Your task to perform on an android device: set the stopwatch Image 0: 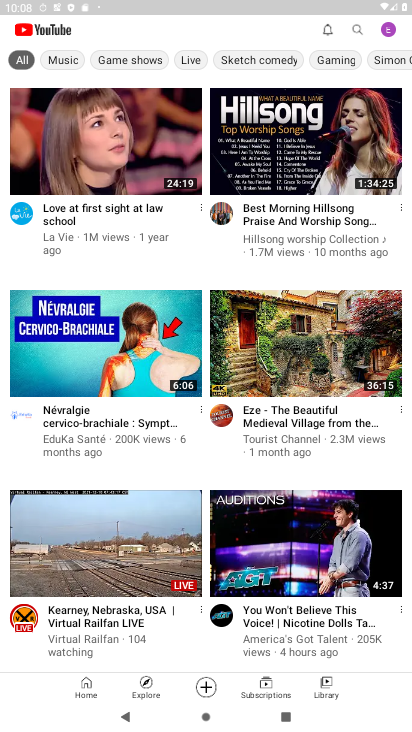
Step 0: press home button
Your task to perform on an android device: set the stopwatch Image 1: 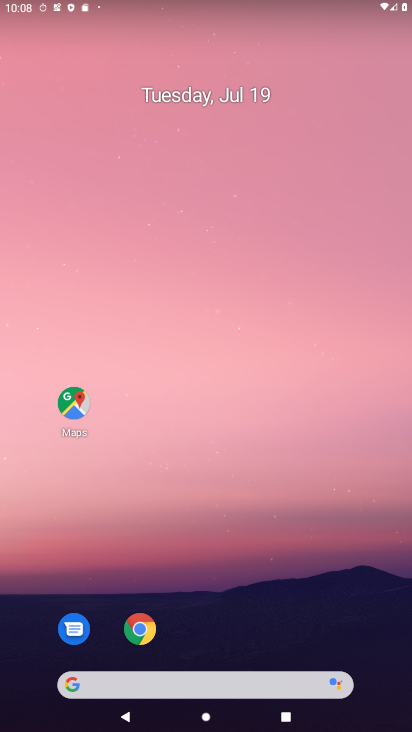
Step 1: drag from (242, 618) to (247, 156)
Your task to perform on an android device: set the stopwatch Image 2: 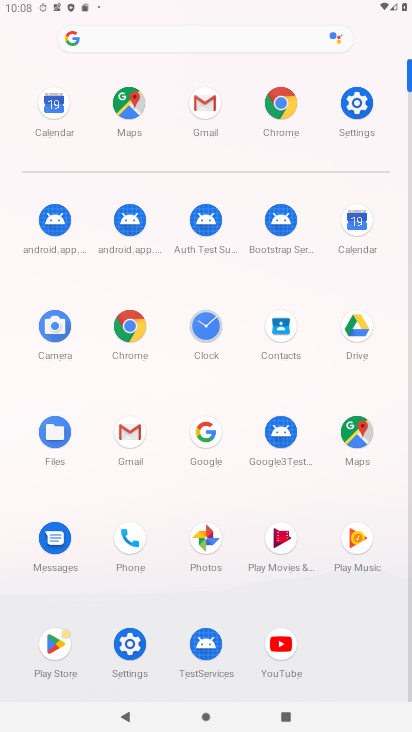
Step 2: click (200, 331)
Your task to perform on an android device: set the stopwatch Image 3: 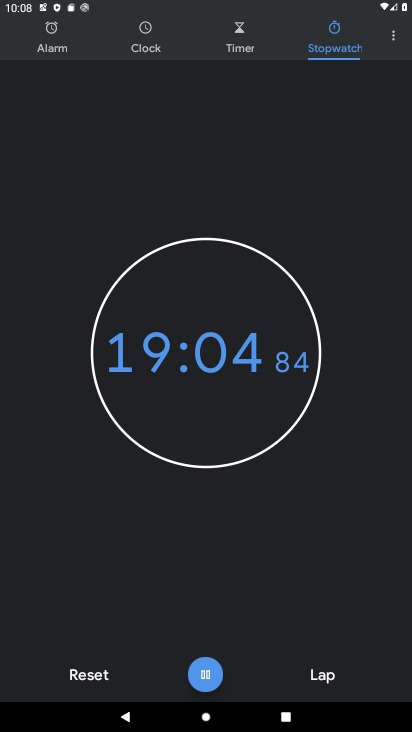
Step 3: click (93, 679)
Your task to perform on an android device: set the stopwatch Image 4: 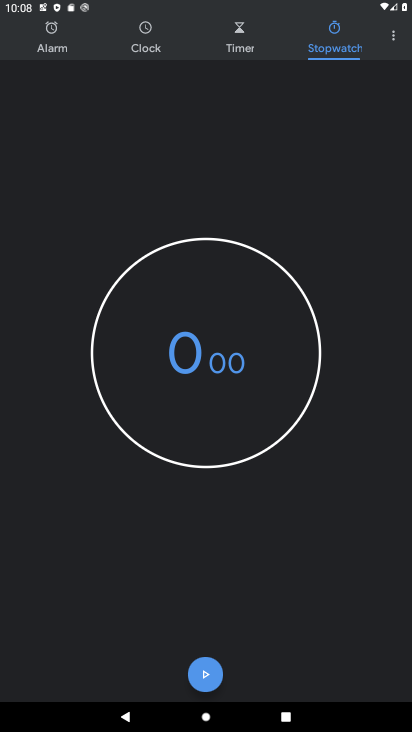
Step 4: click (215, 676)
Your task to perform on an android device: set the stopwatch Image 5: 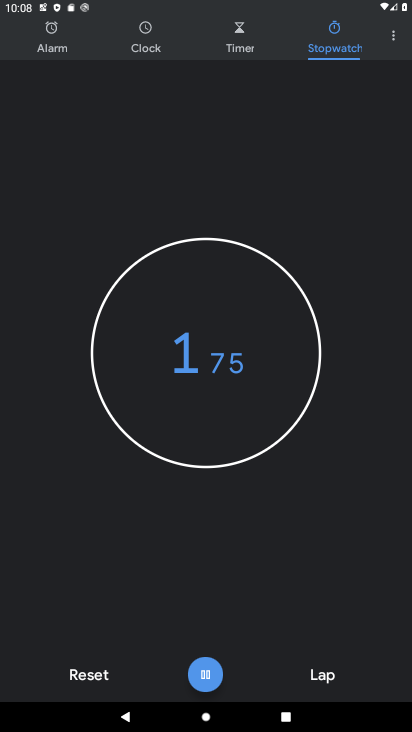
Step 5: task complete